Your task to perform on an android device: When is my next appointment? Image 0: 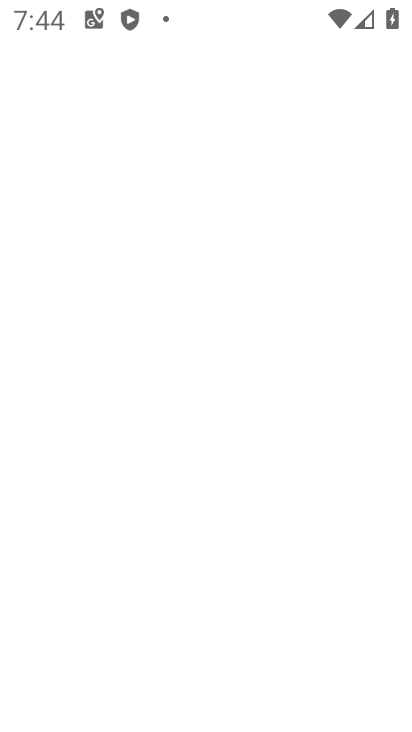
Step 0: press home button
Your task to perform on an android device: When is my next appointment? Image 1: 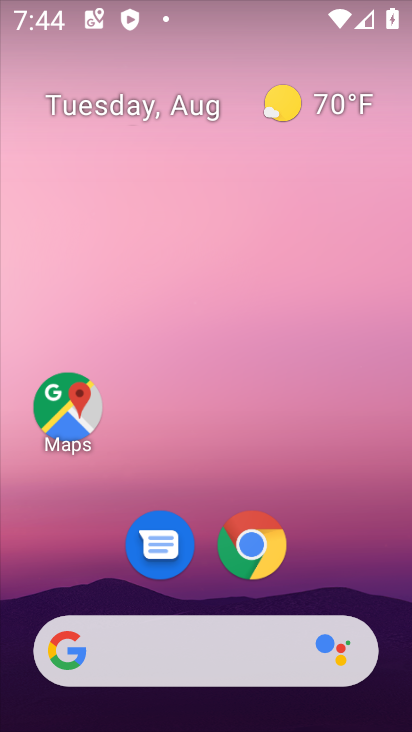
Step 1: drag from (224, 630) to (266, 3)
Your task to perform on an android device: When is my next appointment? Image 2: 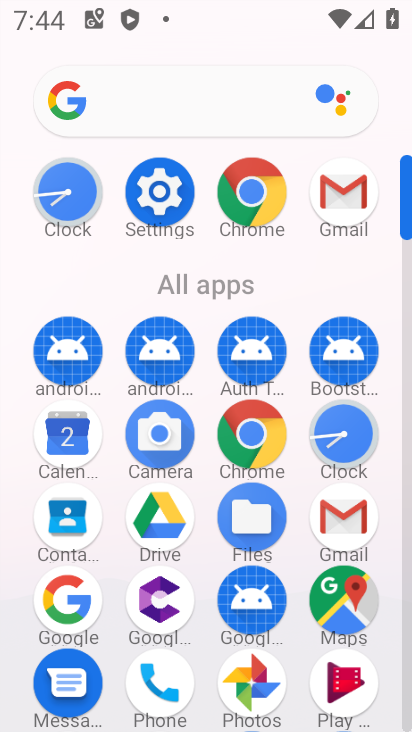
Step 2: click (64, 446)
Your task to perform on an android device: When is my next appointment? Image 3: 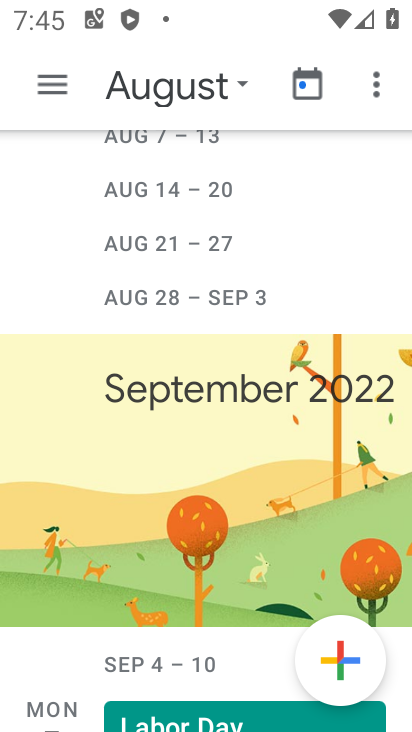
Step 3: click (48, 92)
Your task to perform on an android device: When is my next appointment? Image 4: 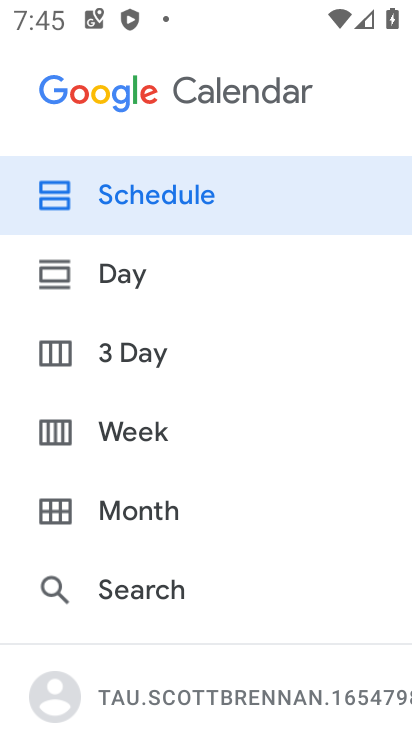
Step 4: drag from (154, 565) to (147, 98)
Your task to perform on an android device: When is my next appointment? Image 5: 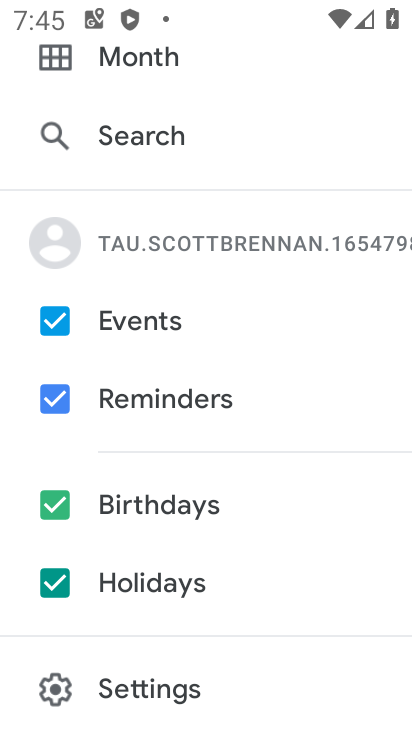
Step 5: click (60, 591)
Your task to perform on an android device: When is my next appointment? Image 6: 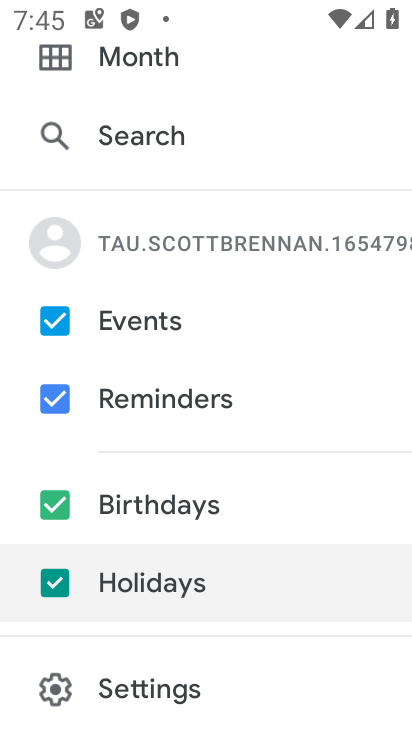
Step 6: click (59, 495)
Your task to perform on an android device: When is my next appointment? Image 7: 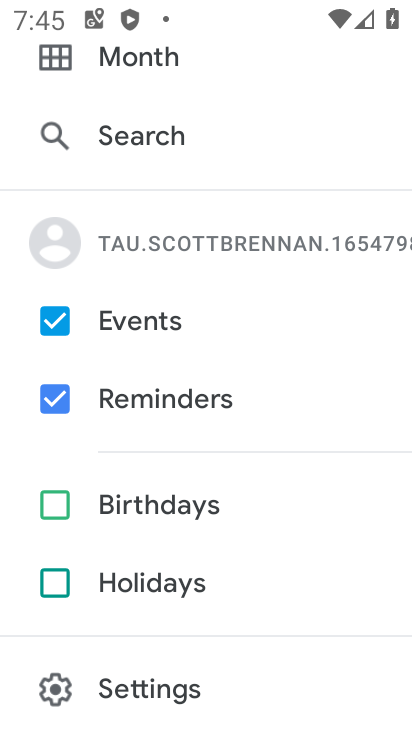
Step 7: drag from (217, 362) to (209, 731)
Your task to perform on an android device: When is my next appointment? Image 8: 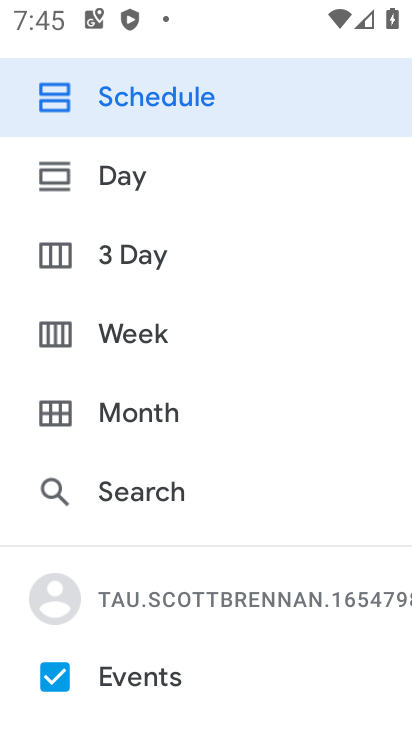
Step 8: press back button
Your task to perform on an android device: When is my next appointment? Image 9: 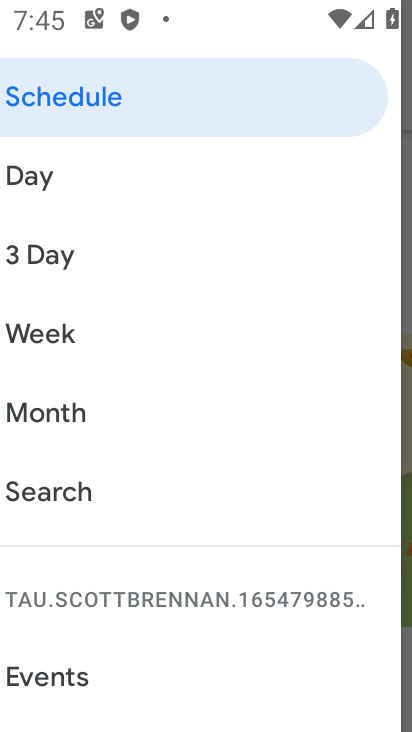
Step 9: click (409, 346)
Your task to perform on an android device: When is my next appointment? Image 10: 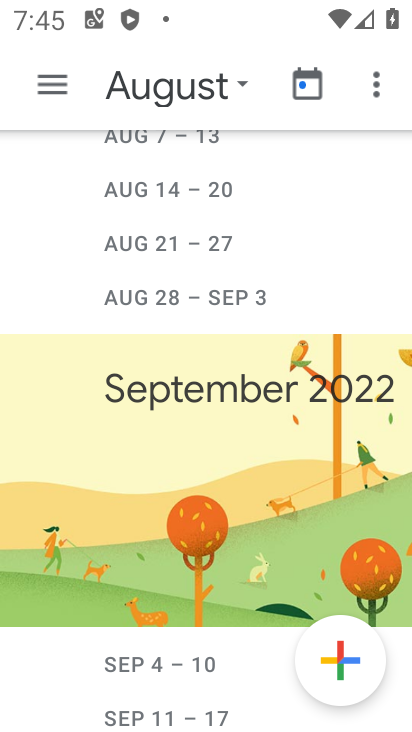
Step 10: task complete